Your task to perform on an android device: Search for pizza restaurants on Maps Image 0: 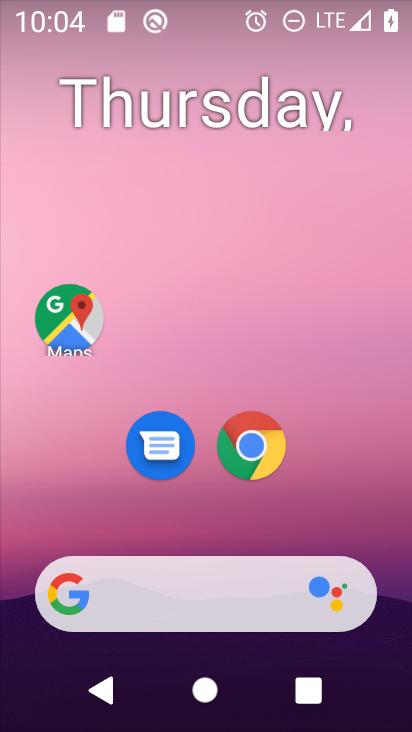
Step 0: drag from (394, 610) to (322, 56)
Your task to perform on an android device: Search for pizza restaurants on Maps Image 1: 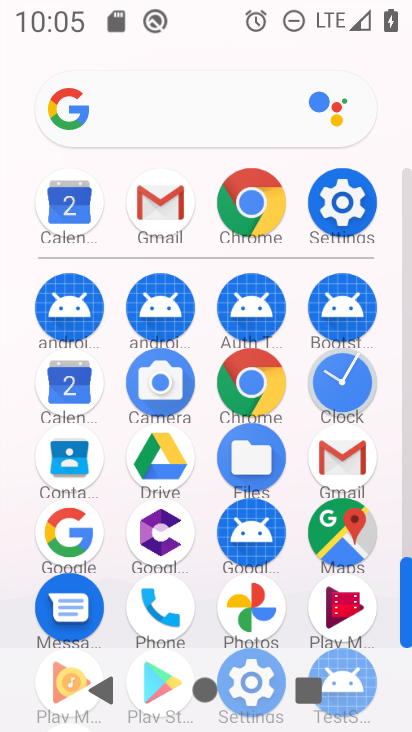
Step 1: click (328, 541)
Your task to perform on an android device: Search for pizza restaurants on Maps Image 2: 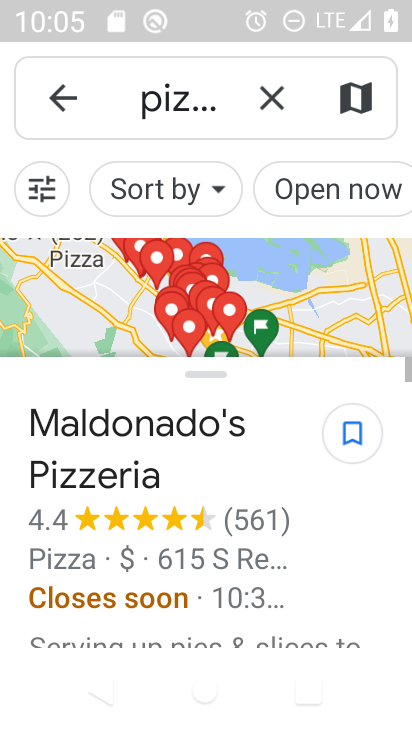
Step 2: task complete